Your task to perform on an android device: Open Chrome and go to the settings page Image 0: 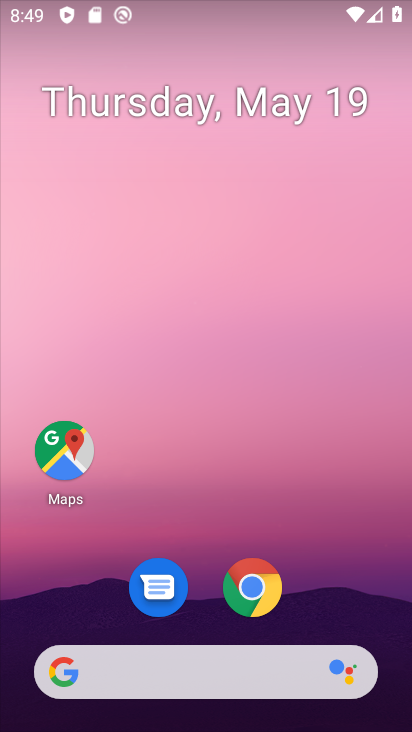
Step 0: click (260, 581)
Your task to perform on an android device: Open Chrome and go to the settings page Image 1: 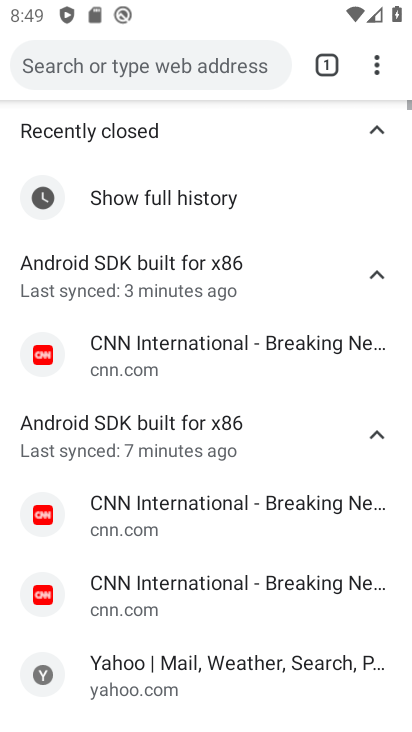
Step 1: click (376, 55)
Your task to perform on an android device: Open Chrome and go to the settings page Image 2: 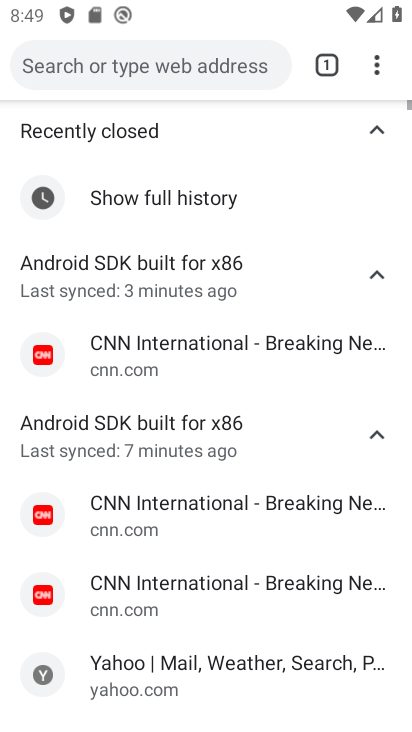
Step 2: task complete